Your task to perform on an android device: Go to notification settings Image 0: 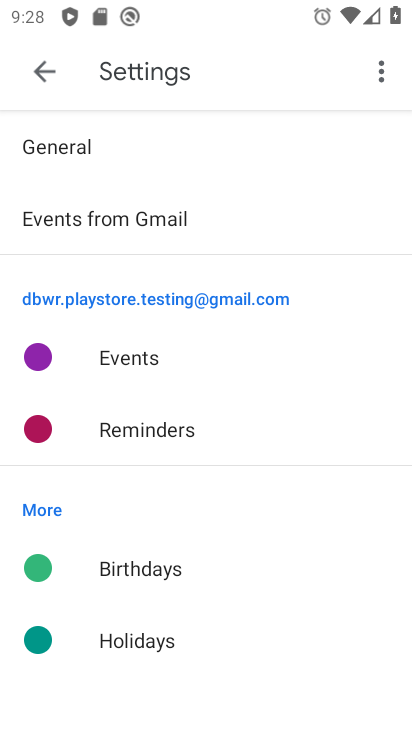
Step 0: press back button
Your task to perform on an android device: Go to notification settings Image 1: 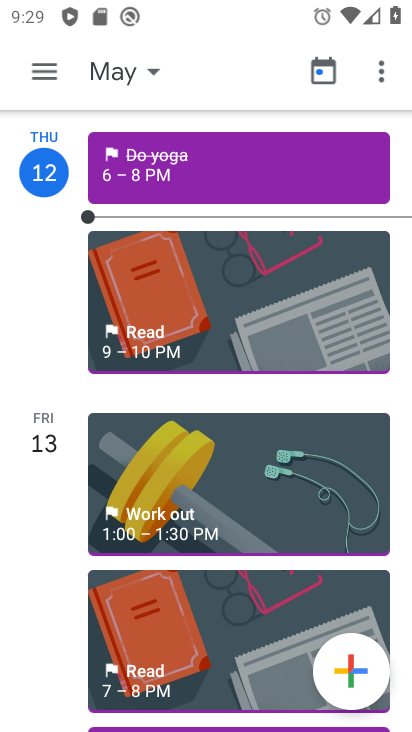
Step 1: press back button
Your task to perform on an android device: Go to notification settings Image 2: 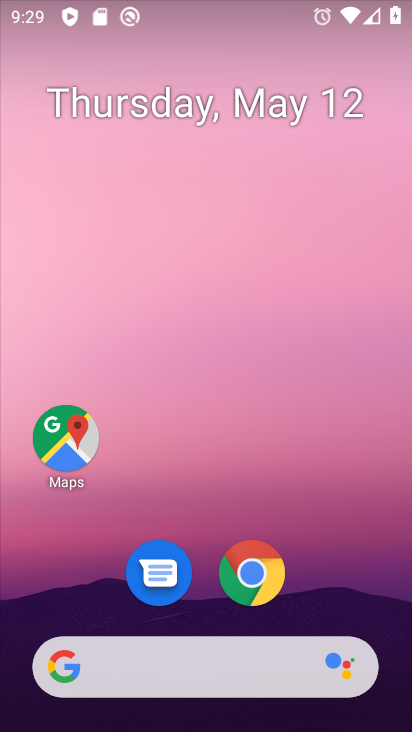
Step 2: drag from (365, 579) to (303, 144)
Your task to perform on an android device: Go to notification settings Image 3: 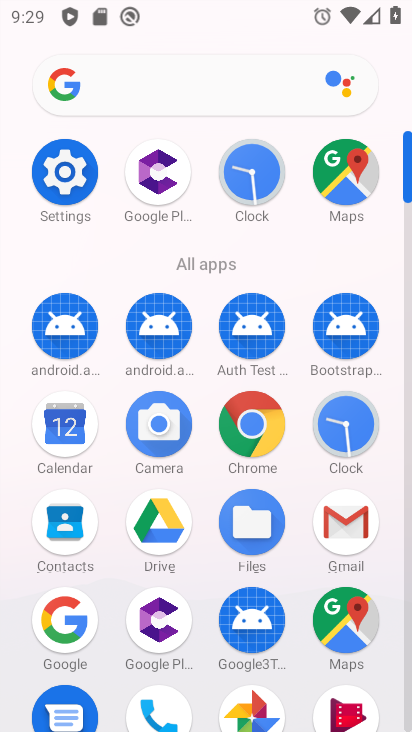
Step 3: click (66, 171)
Your task to perform on an android device: Go to notification settings Image 4: 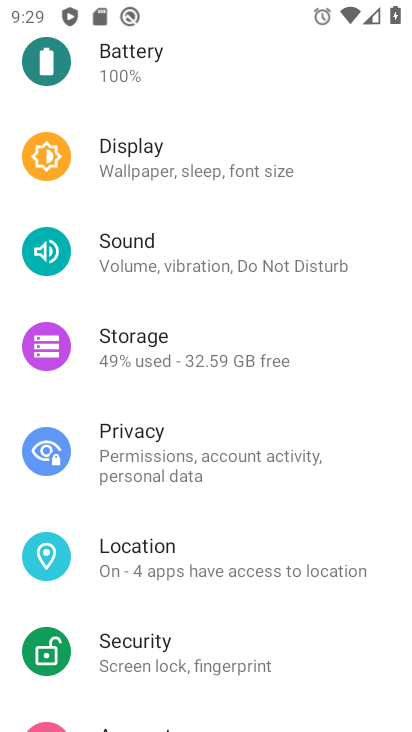
Step 4: drag from (188, 229) to (215, 338)
Your task to perform on an android device: Go to notification settings Image 5: 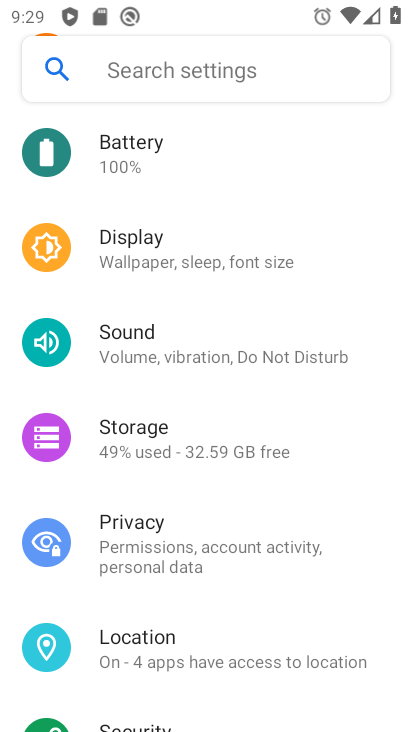
Step 5: drag from (192, 193) to (204, 316)
Your task to perform on an android device: Go to notification settings Image 6: 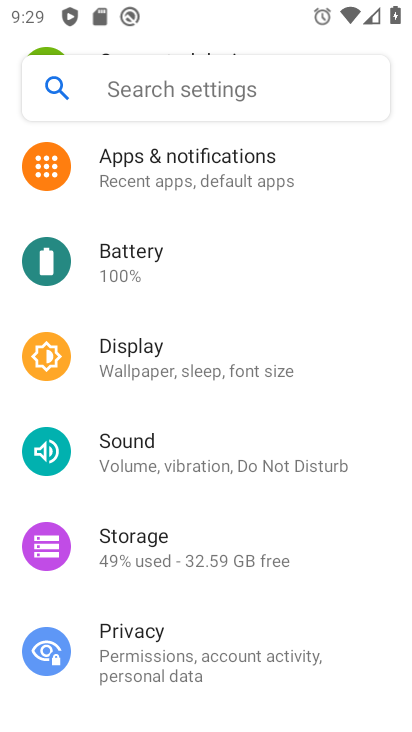
Step 6: drag from (193, 203) to (241, 286)
Your task to perform on an android device: Go to notification settings Image 7: 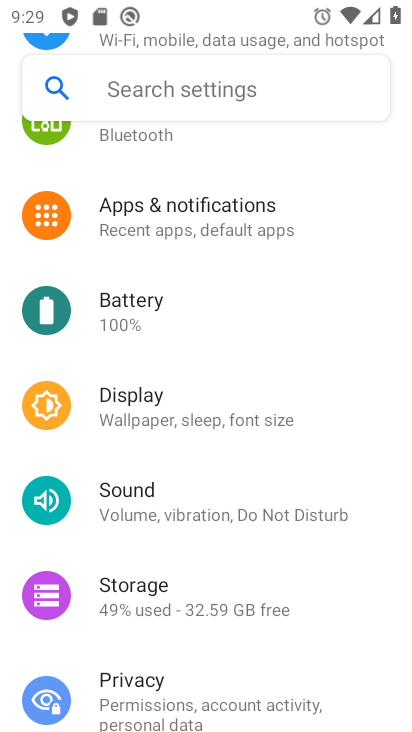
Step 7: click (208, 211)
Your task to perform on an android device: Go to notification settings Image 8: 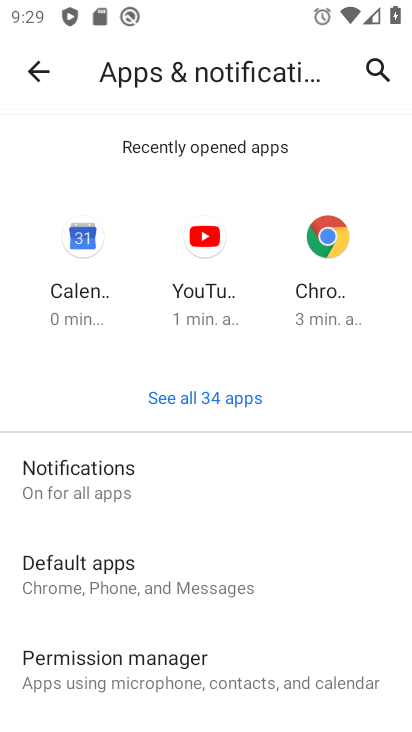
Step 8: click (90, 472)
Your task to perform on an android device: Go to notification settings Image 9: 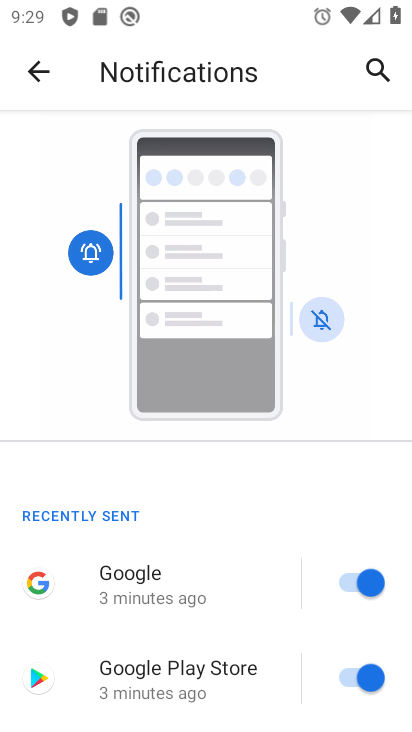
Step 9: task complete